Your task to perform on an android device: Go to CNN.com Image 0: 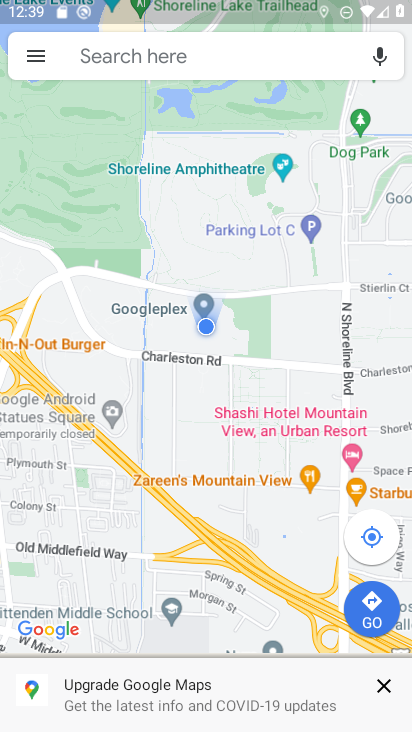
Step 0: press home button
Your task to perform on an android device: Go to CNN.com Image 1: 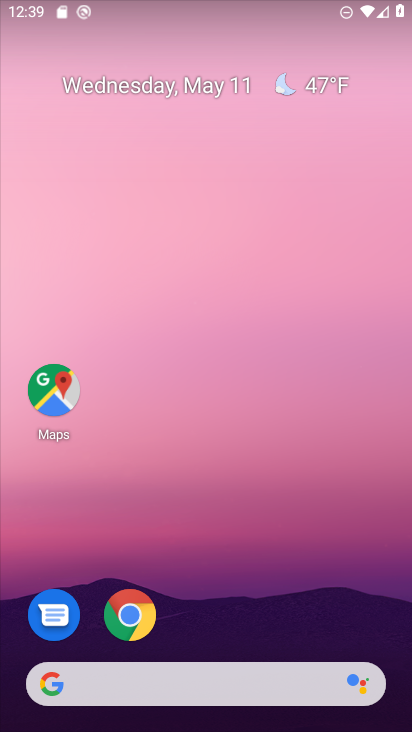
Step 1: drag from (229, 508) to (218, 138)
Your task to perform on an android device: Go to CNN.com Image 2: 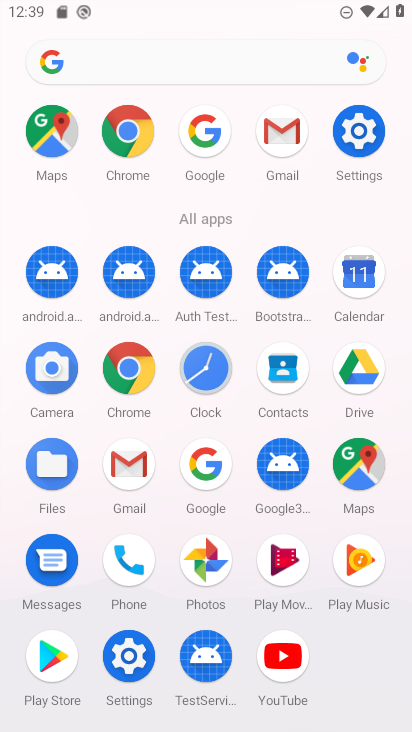
Step 2: click (124, 137)
Your task to perform on an android device: Go to CNN.com Image 3: 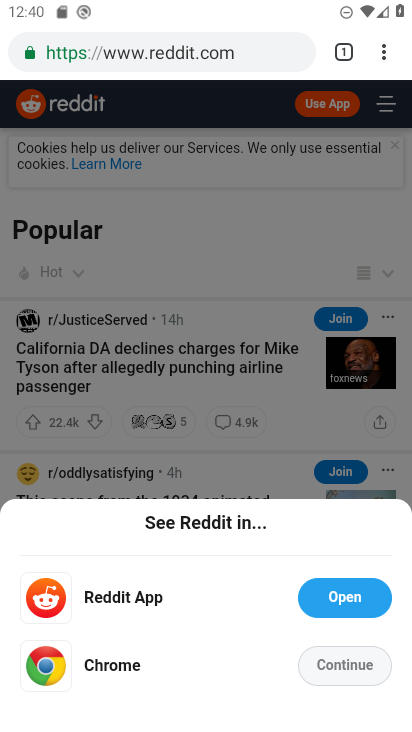
Step 3: click (147, 44)
Your task to perform on an android device: Go to CNN.com Image 4: 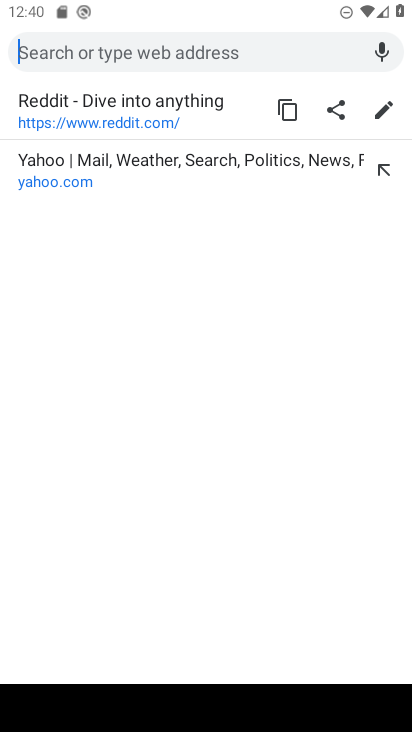
Step 4: type "cnn"
Your task to perform on an android device: Go to CNN.com Image 5: 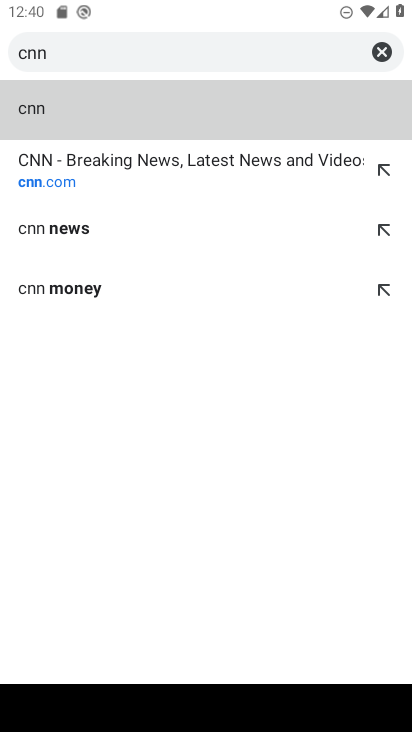
Step 5: click (135, 172)
Your task to perform on an android device: Go to CNN.com Image 6: 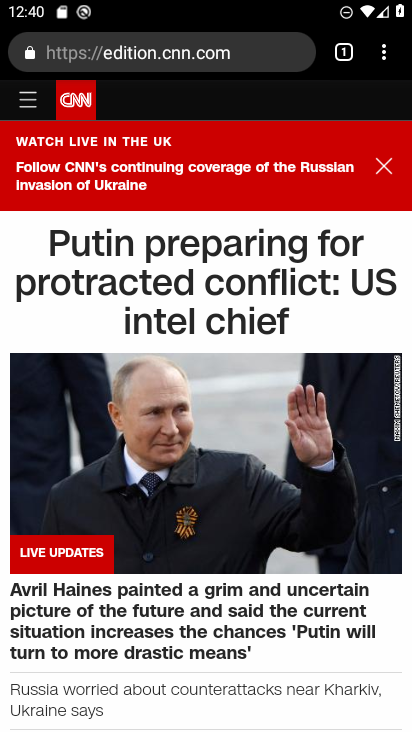
Step 6: task complete